Your task to perform on an android device: Search for seafood restaurants on Google Maps Image 0: 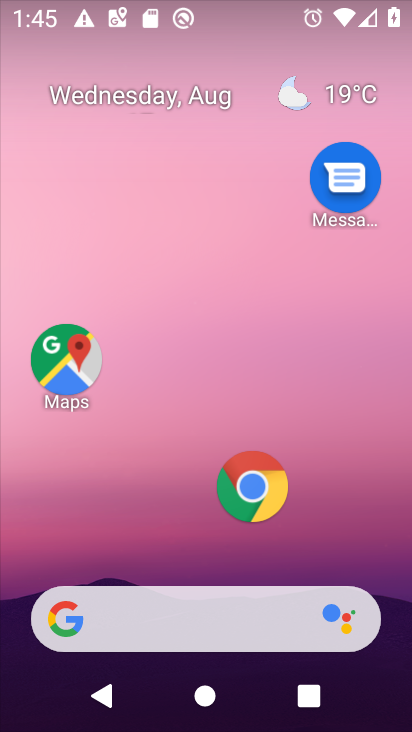
Step 0: click (55, 365)
Your task to perform on an android device: Search for seafood restaurants on Google Maps Image 1: 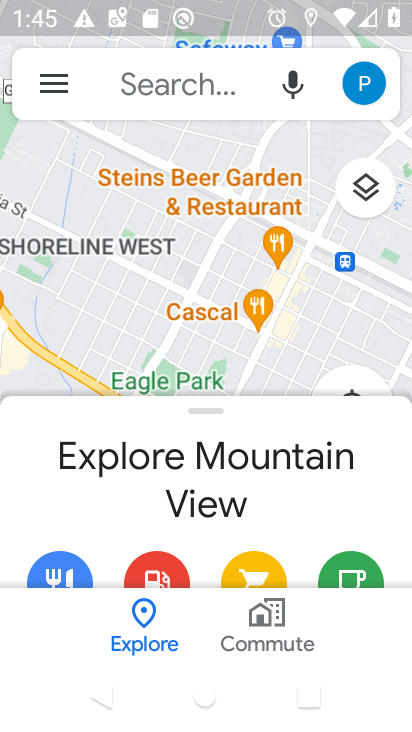
Step 1: click (161, 80)
Your task to perform on an android device: Search for seafood restaurants on Google Maps Image 2: 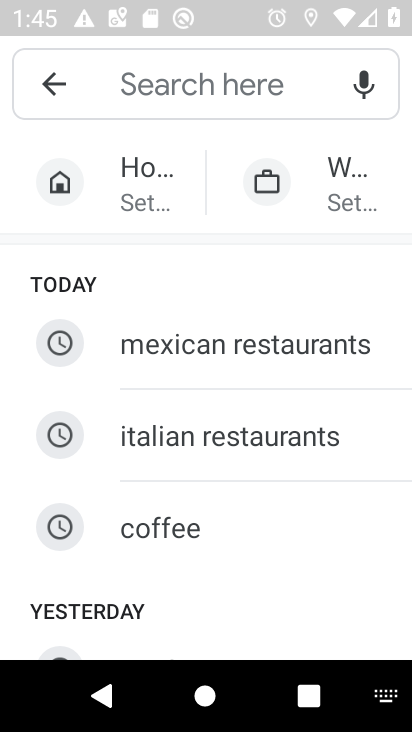
Step 2: drag from (208, 576) to (291, 180)
Your task to perform on an android device: Search for seafood restaurants on Google Maps Image 3: 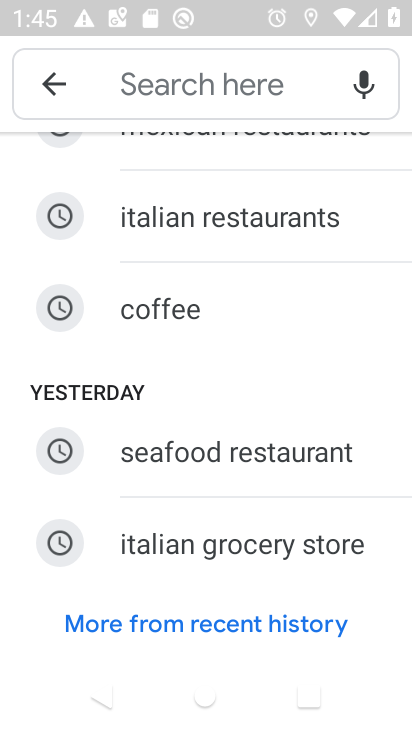
Step 3: click (207, 447)
Your task to perform on an android device: Search for seafood restaurants on Google Maps Image 4: 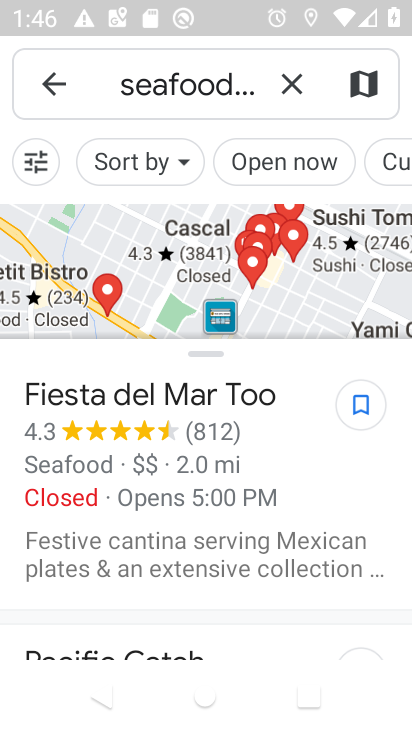
Step 4: task complete